Your task to perform on an android device: Go to calendar. Show me events next week Image 0: 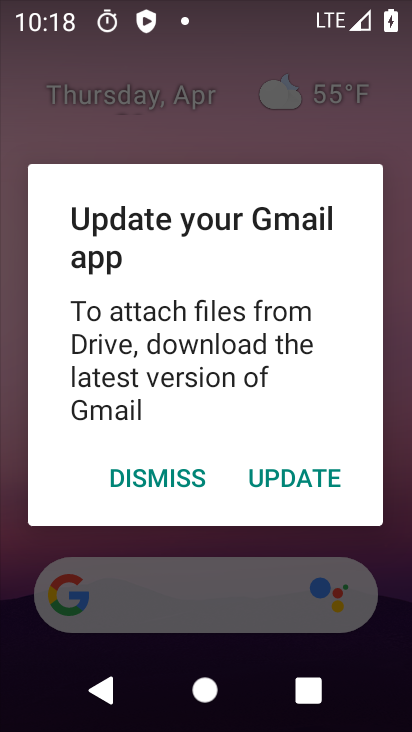
Step 0: press home button
Your task to perform on an android device: Go to calendar. Show me events next week Image 1: 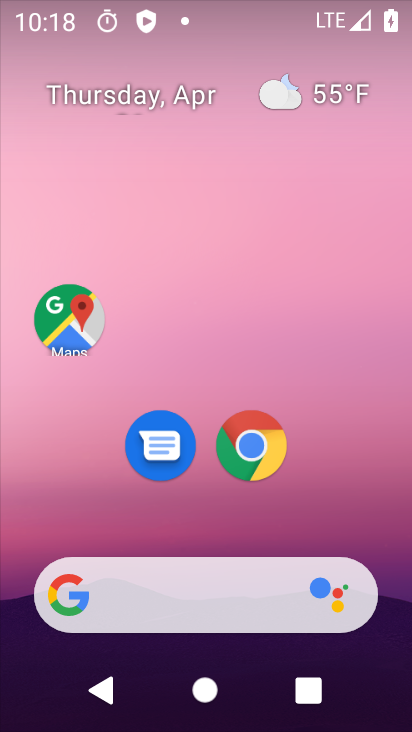
Step 1: drag from (358, 529) to (397, 9)
Your task to perform on an android device: Go to calendar. Show me events next week Image 2: 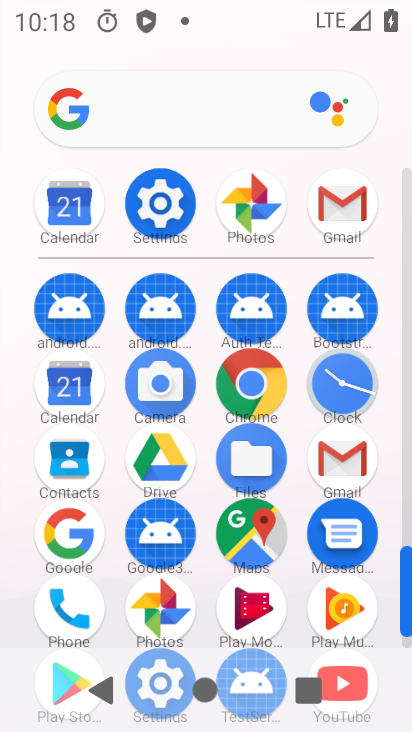
Step 2: click (59, 386)
Your task to perform on an android device: Go to calendar. Show me events next week Image 3: 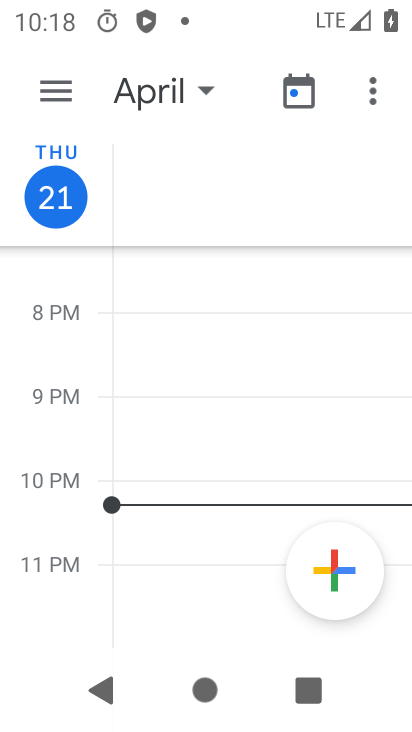
Step 3: click (203, 96)
Your task to perform on an android device: Go to calendar. Show me events next week Image 4: 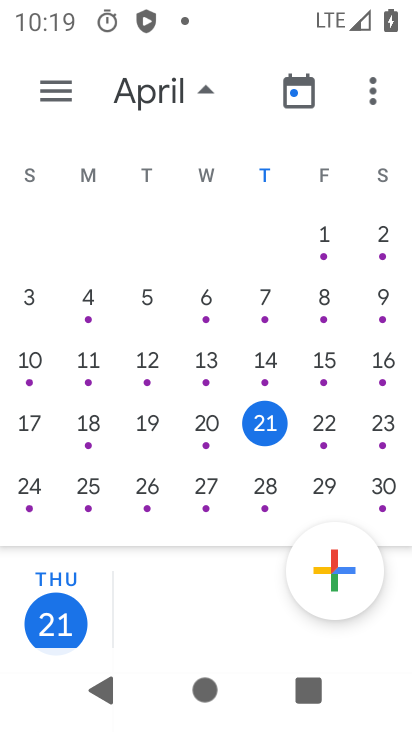
Step 4: click (152, 499)
Your task to perform on an android device: Go to calendar. Show me events next week Image 5: 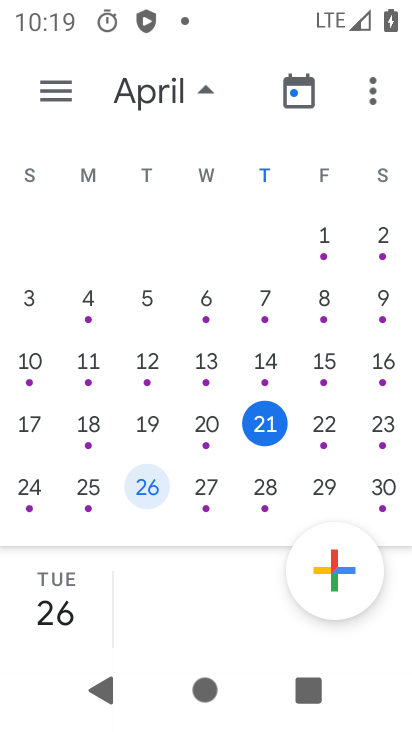
Step 5: drag from (176, 578) to (153, 173)
Your task to perform on an android device: Go to calendar. Show me events next week Image 6: 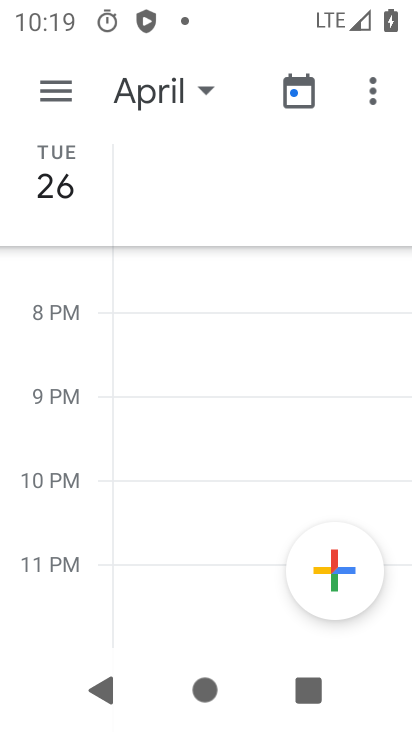
Step 6: drag from (145, 479) to (144, 152)
Your task to perform on an android device: Go to calendar. Show me events next week Image 7: 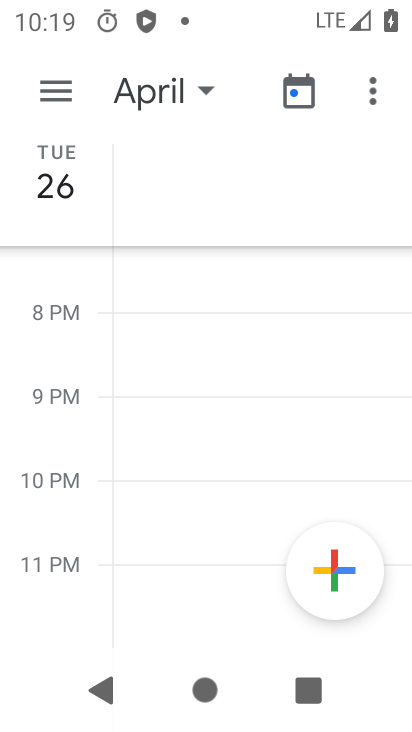
Step 7: drag from (191, 452) to (214, 171)
Your task to perform on an android device: Go to calendar. Show me events next week Image 8: 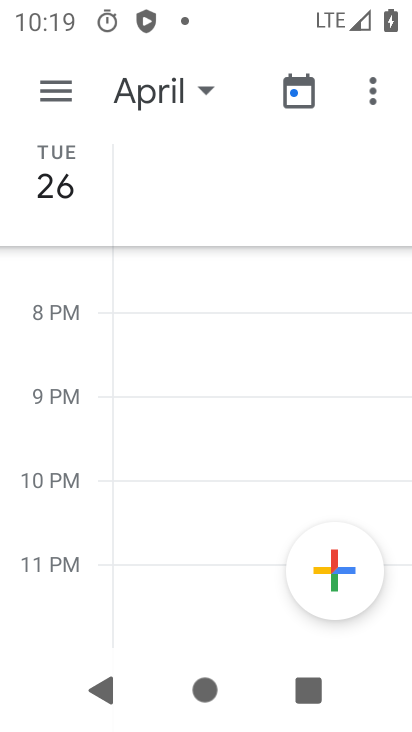
Step 8: click (54, 99)
Your task to perform on an android device: Go to calendar. Show me events next week Image 9: 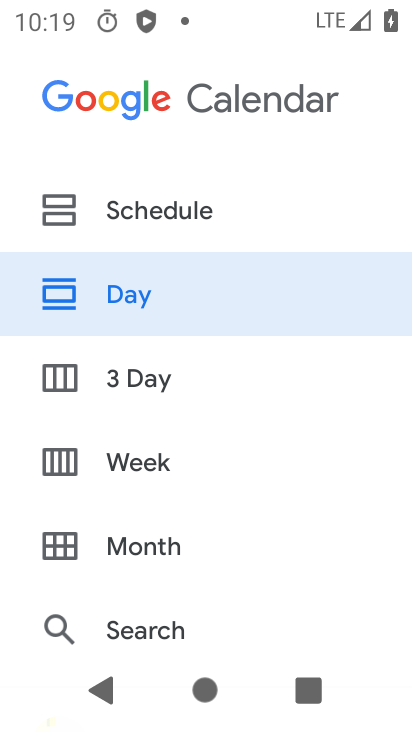
Step 9: click (119, 467)
Your task to perform on an android device: Go to calendar. Show me events next week Image 10: 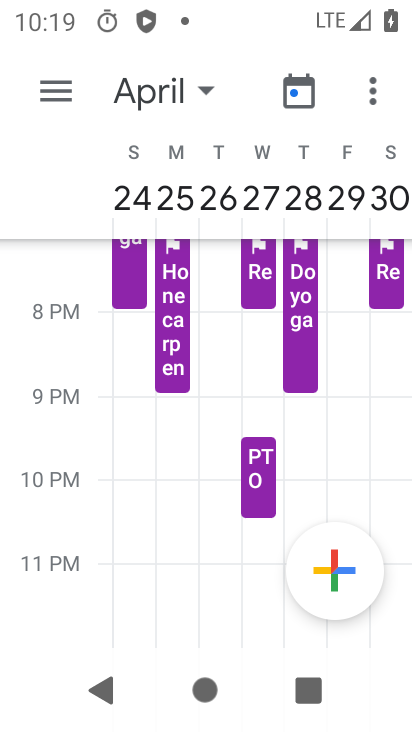
Step 10: click (257, 279)
Your task to perform on an android device: Go to calendar. Show me events next week Image 11: 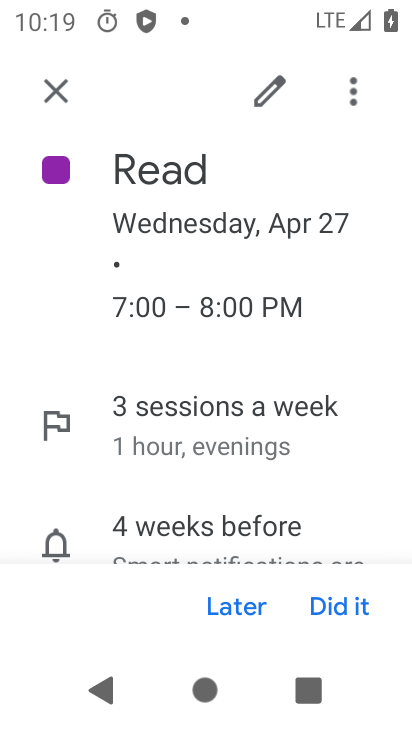
Step 11: task complete